Your task to perform on an android device: Search for Mexican restaurants on Maps Image 0: 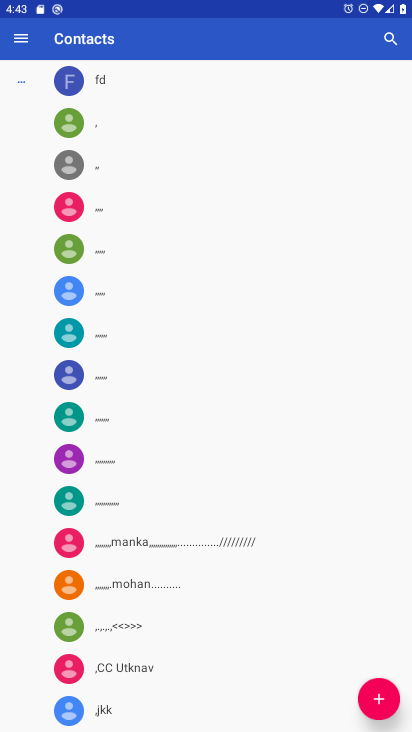
Step 0: press home button
Your task to perform on an android device: Search for Mexican restaurants on Maps Image 1: 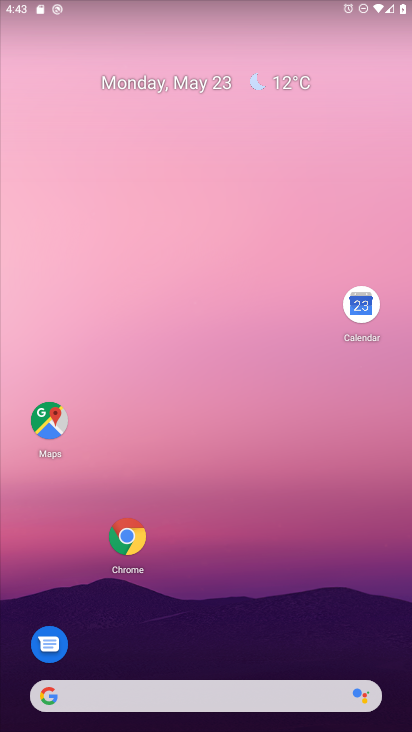
Step 1: click (45, 417)
Your task to perform on an android device: Search for Mexican restaurants on Maps Image 2: 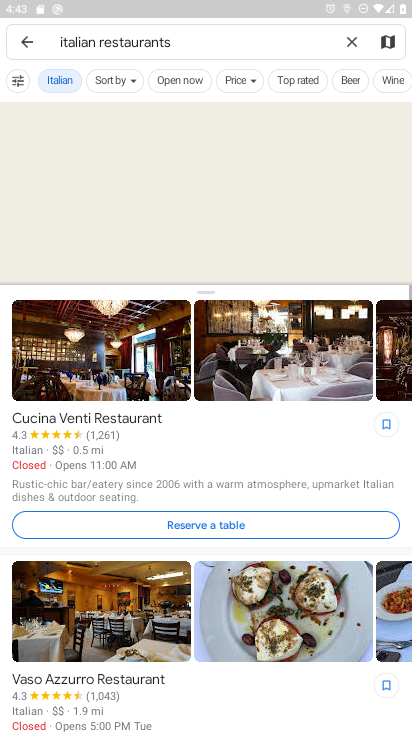
Step 2: click (216, 35)
Your task to perform on an android device: Search for Mexican restaurants on Maps Image 3: 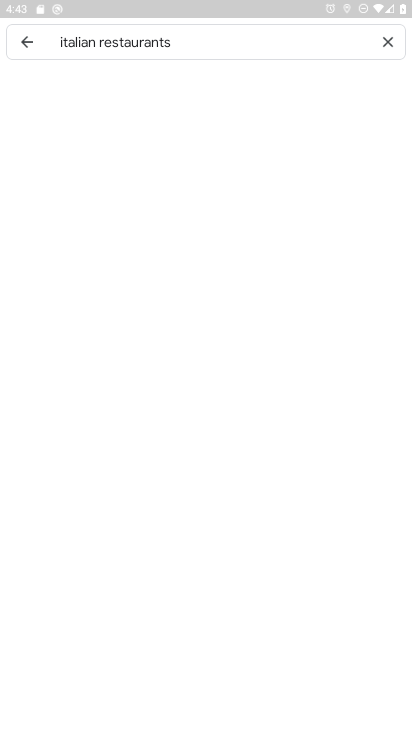
Step 3: click (382, 38)
Your task to perform on an android device: Search for Mexican restaurants on Maps Image 4: 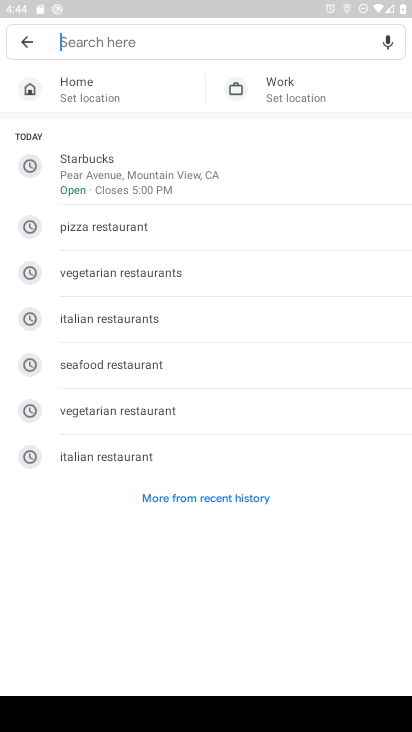
Step 4: type "mexican restaurants"
Your task to perform on an android device: Search for Mexican restaurants on Maps Image 5: 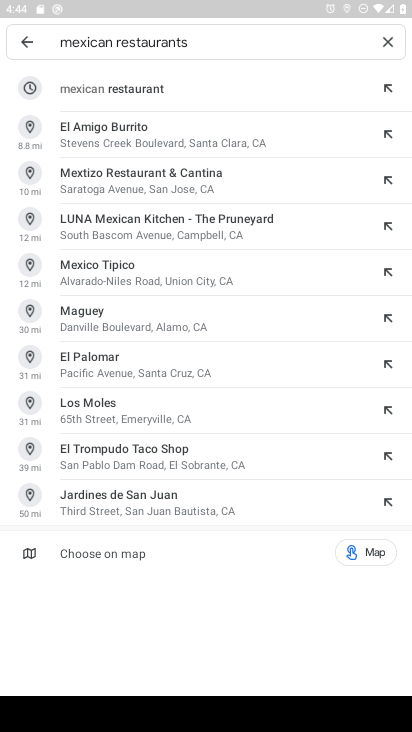
Step 5: press enter
Your task to perform on an android device: Search for Mexican restaurants on Maps Image 6: 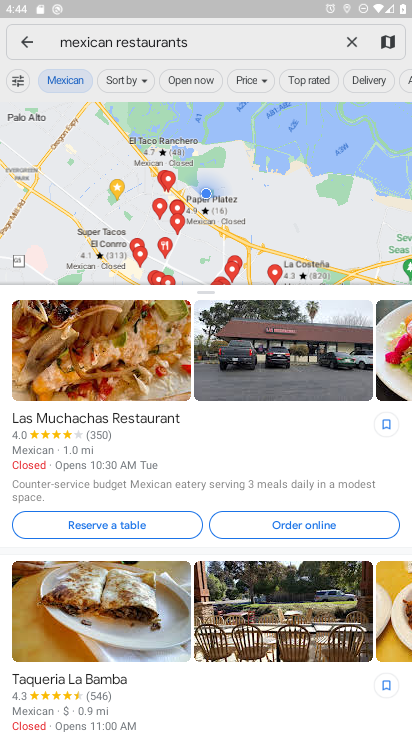
Step 6: task complete